Your task to perform on an android device: check out phone information Image 0: 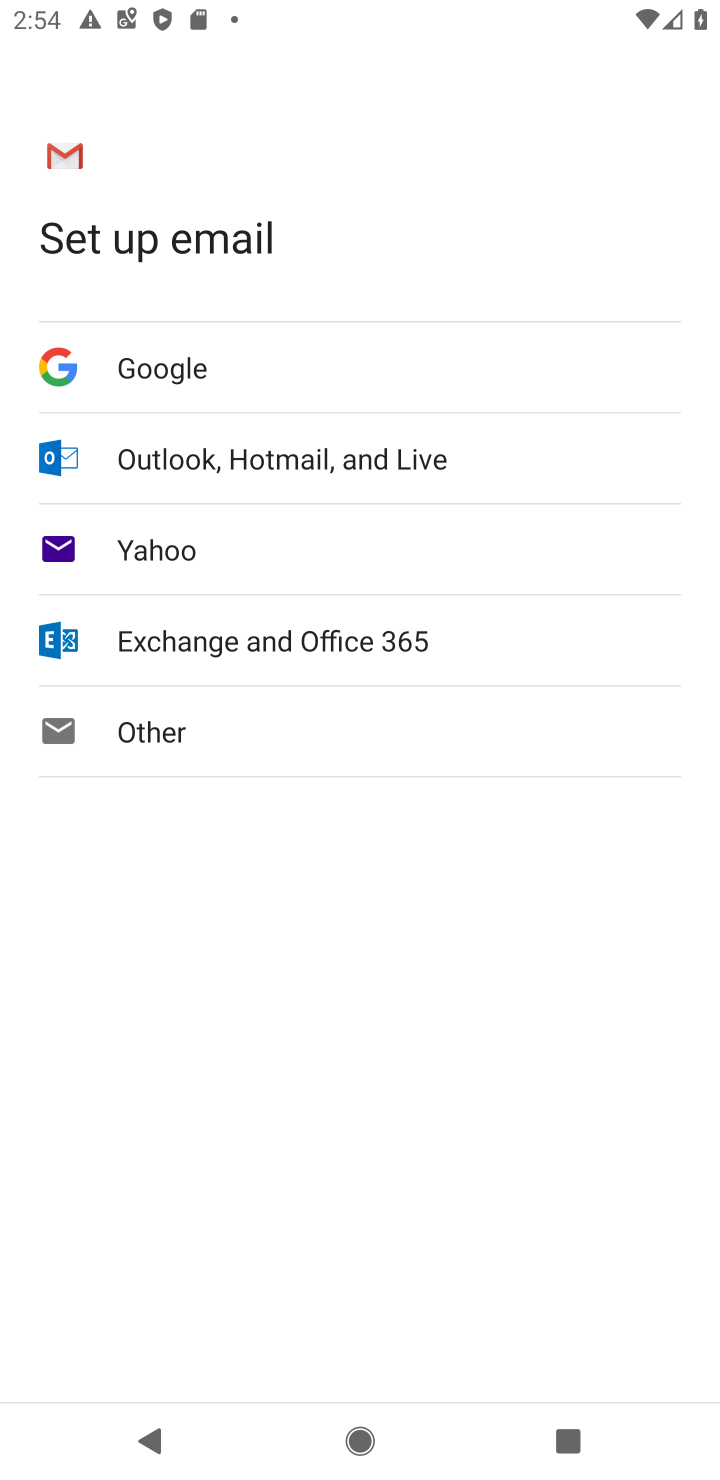
Step 0: press home button
Your task to perform on an android device: check out phone information Image 1: 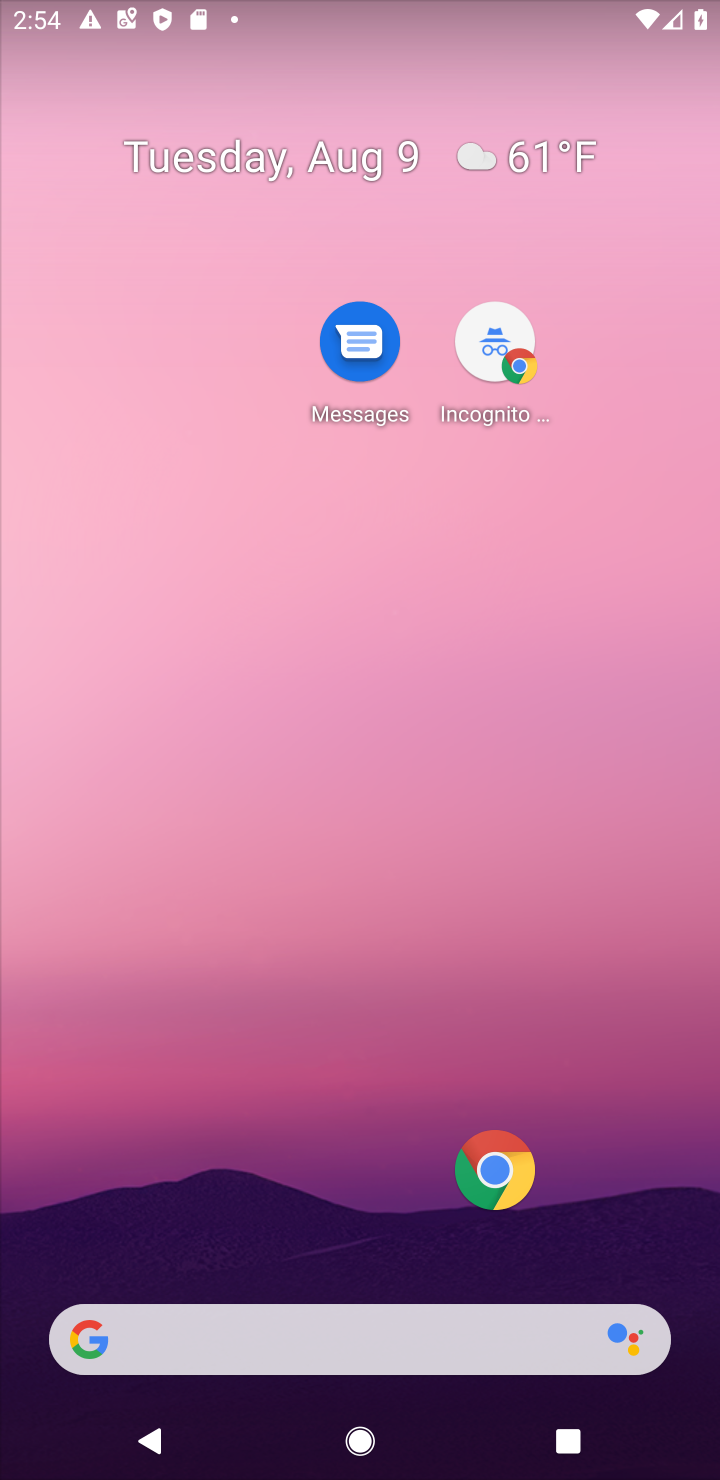
Step 1: drag from (351, 1136) to (627, 17)
Your task to perform on an android device: check out phone information Image 2: 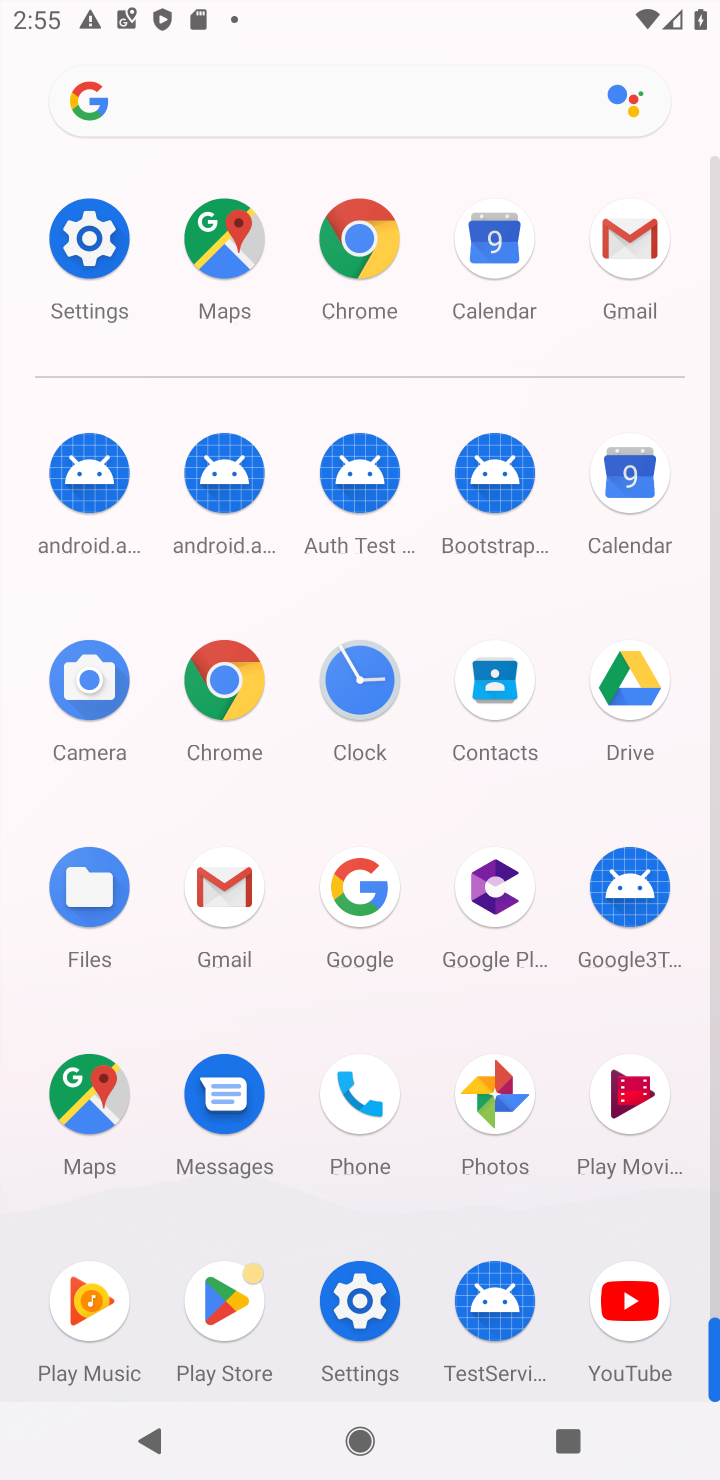
Step 2: click (385, 1300)
Your task to perform on an android device: check out phone information Image 3: 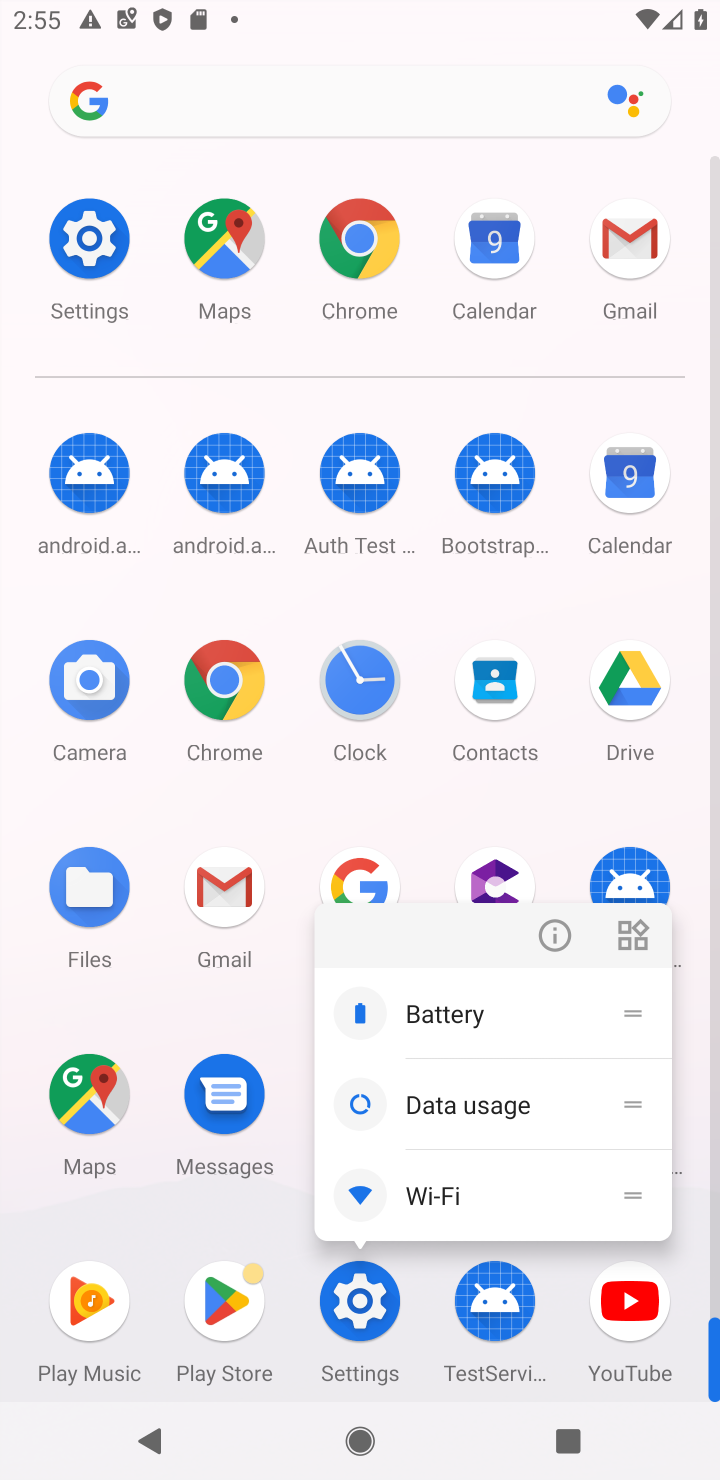
Step 3: click (377, 1319)
Your task to perform on an android device: check out phone information Image 4: 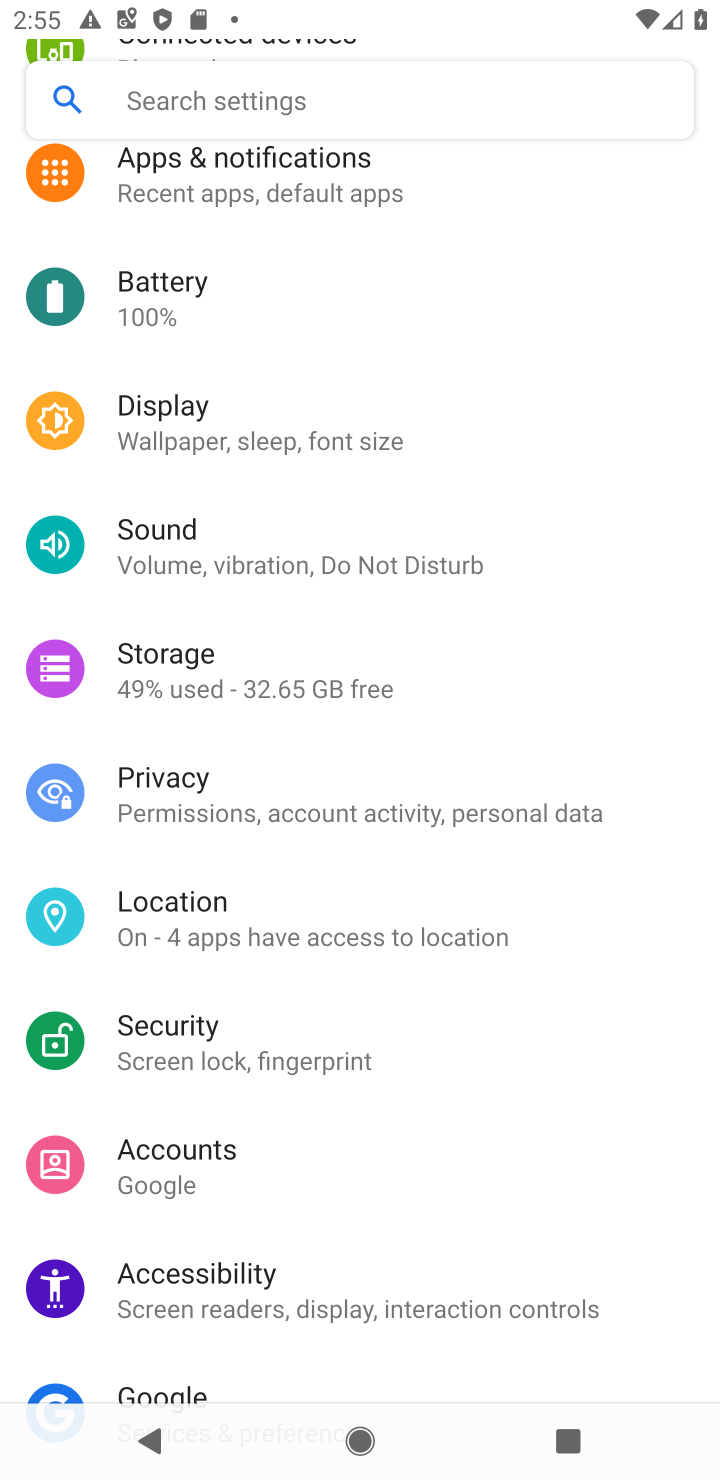
Step 4: drag from (279, 1116) to (292, 516)
Your task to perform on an android device: check out phone information Image 5: 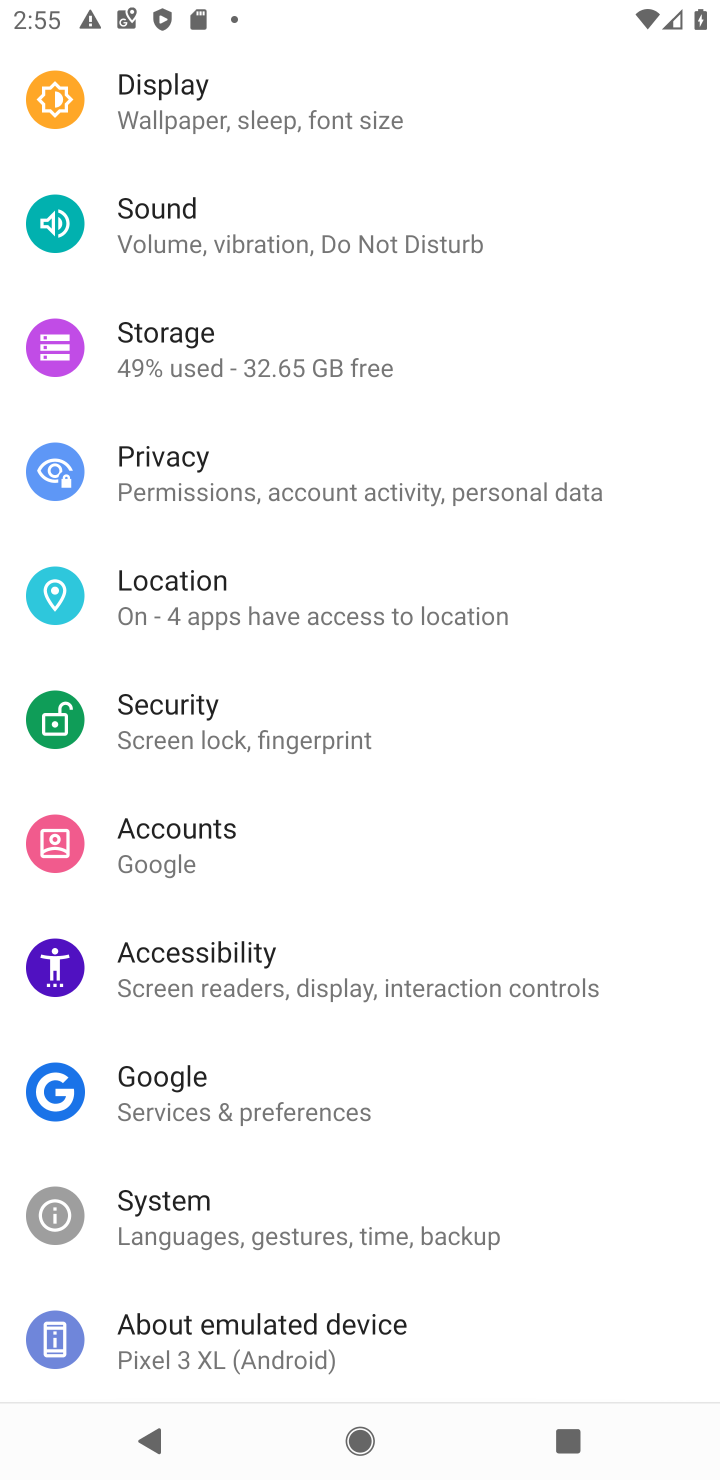
Step 5: drag from (341, 1134) to (420, 383)
Your task to perform on an android device: check out phone information Image 6: 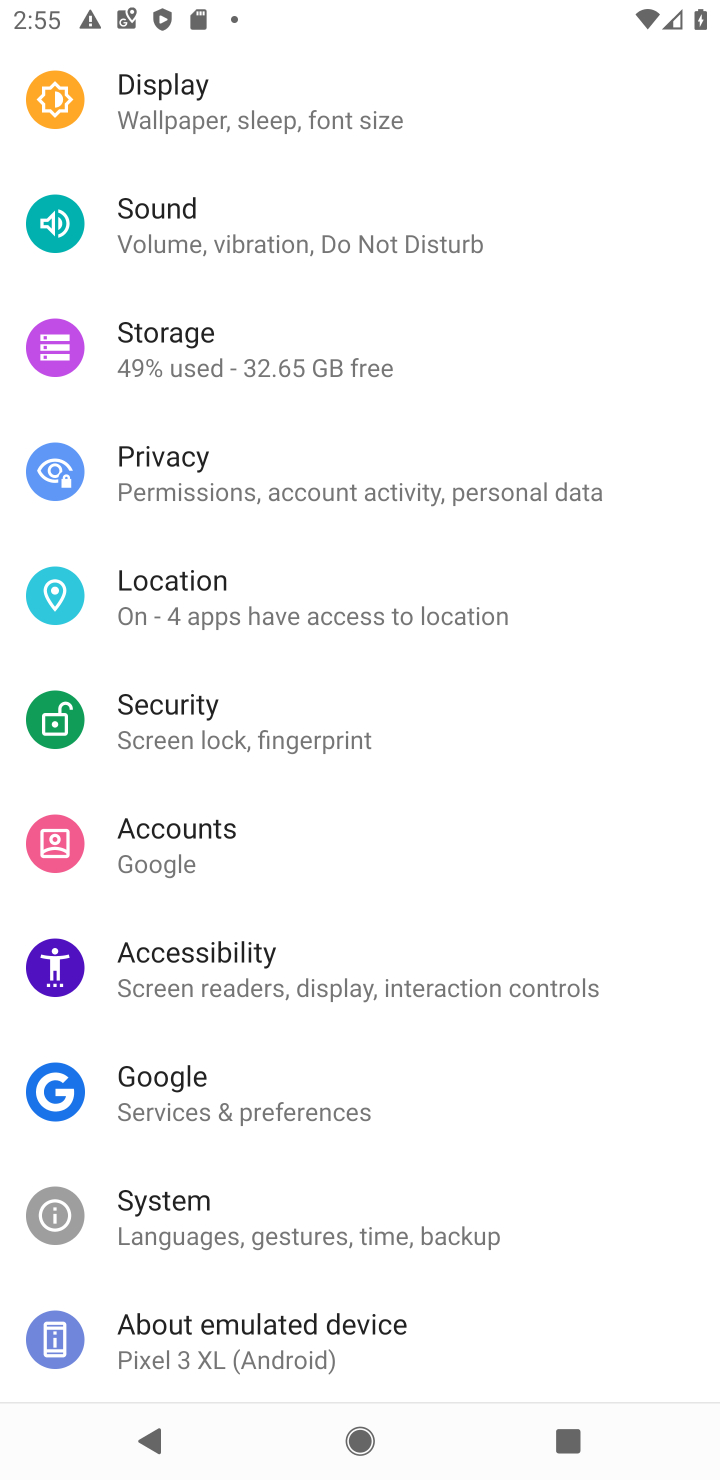
Step 6: click (216, 1375)
Your task to perform on an android device: check out phone information Image 7: 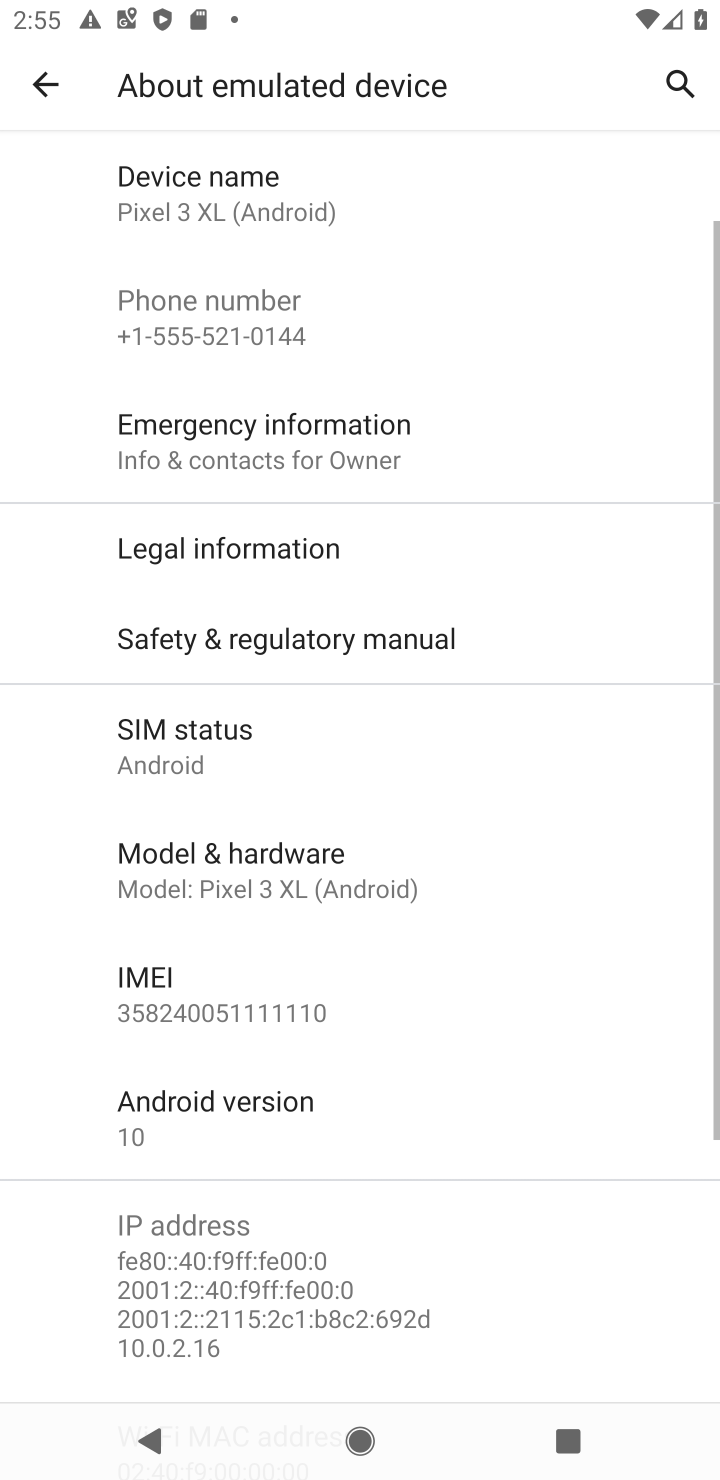
Step 7: task complete